Your task to perform on an android device: What's the weather? Image 0: 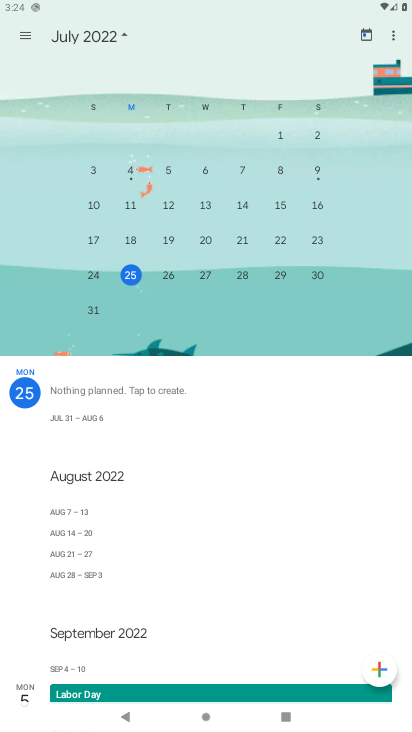
Step 0: press home button
Your task to perform on an android device: What's the weather? Image 1: 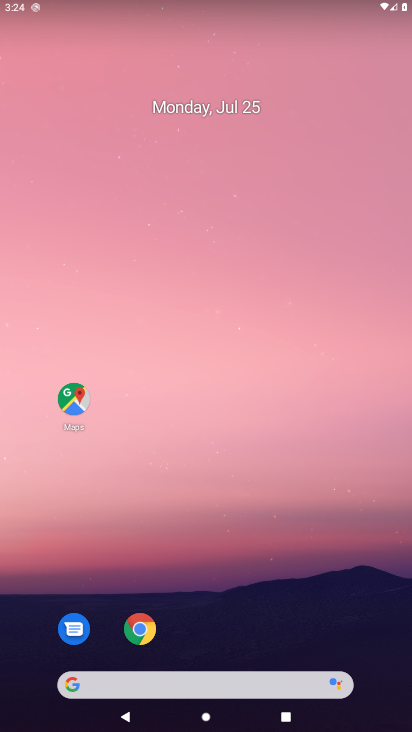
Step 1: click (116, 680)
Your task to perform on an android device: What's the weather? Image 2: 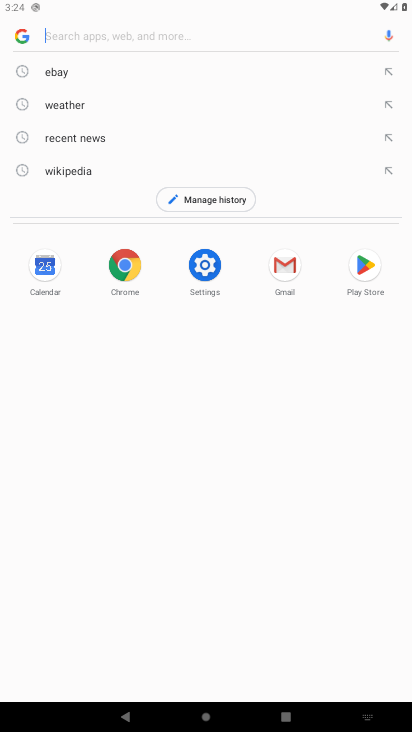
Step 2: type "What's the weather?"
Your task to perform on an android device: What's the weather? Image 3: 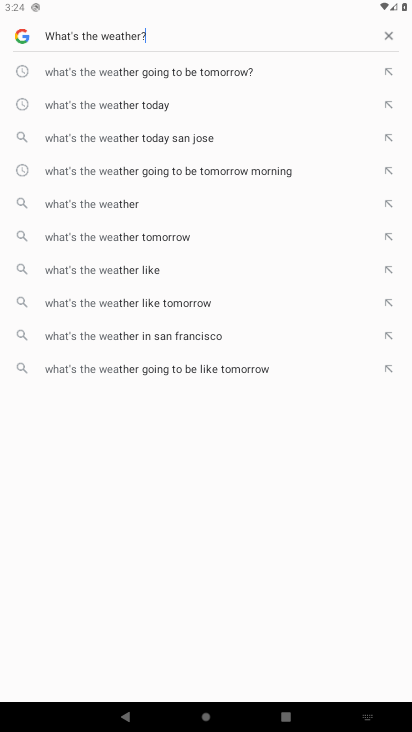
Step 3: type ""
Your task to perform on an android device: What's the weather? Image 4: 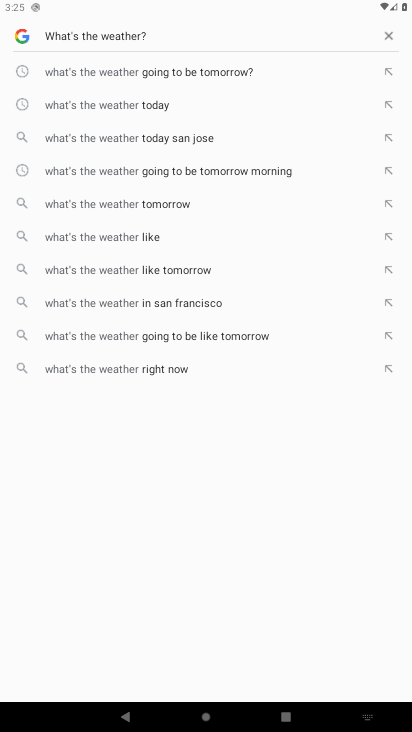
Step 4: type ""
Your task to perform on an android device: What's the weather? Image 5: 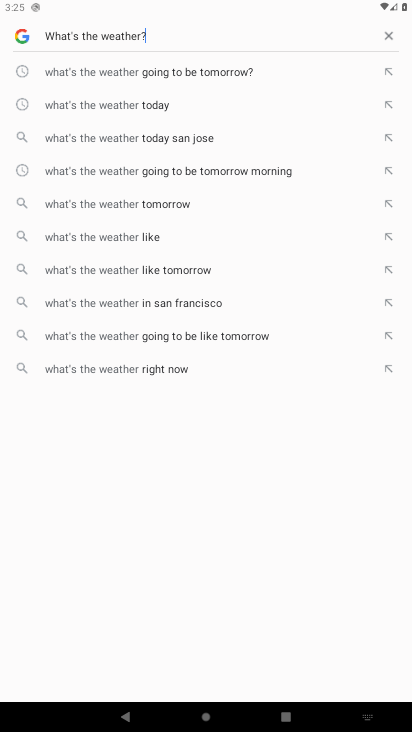
Step 5: type ""
Your task to perform on an android device: What's the weather? Image 6: 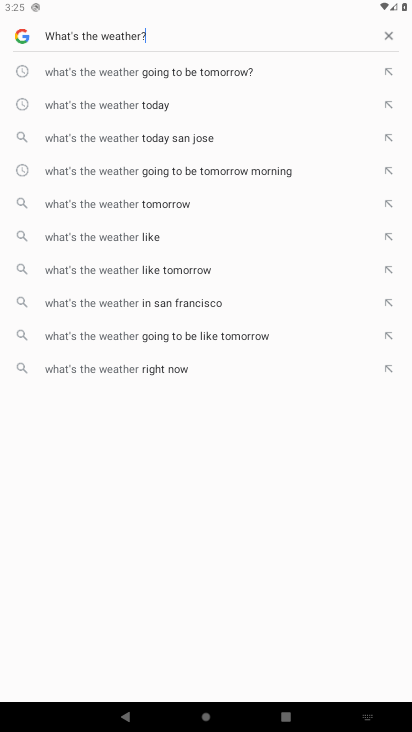
Step 6: task complete